Your task to perform on an android device: toggle wifi Image 0: 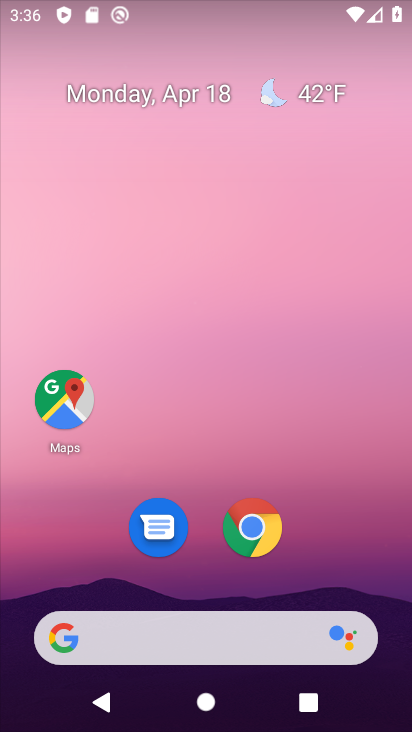
Step 0: drag from (364, 488) to (353, 138)
Your task to perform on an android device: toggle wifi Image 1: 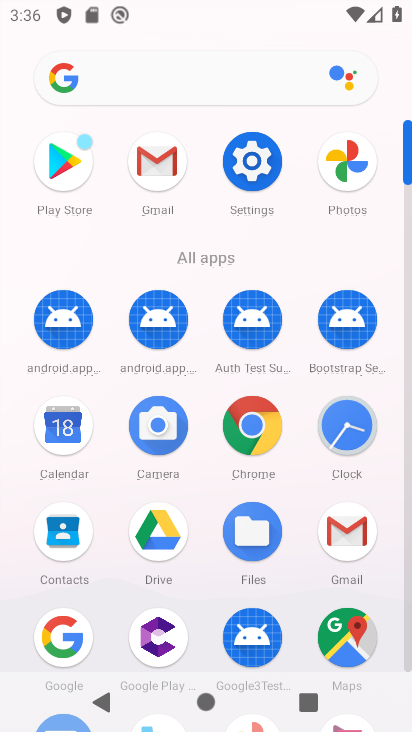
Step 1: click (406, 660)
Your task to perform on an android device: toggle wifi Image 2: 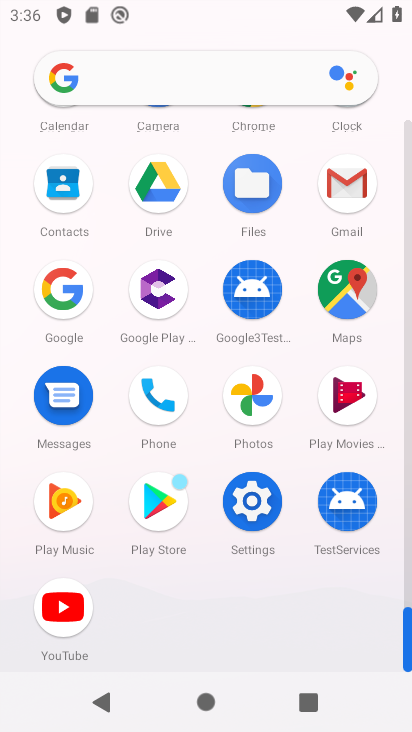
Step 2: click (249, 499)
Your task to perform on an android device: toggle wifi Image 3: 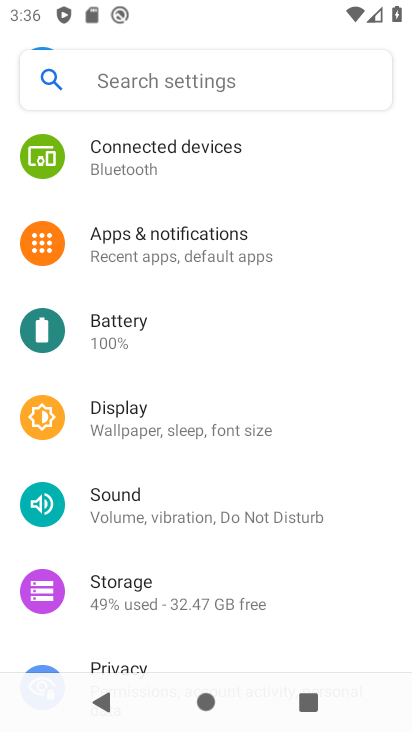
Step 3: drag from (334, 229) to (305, 507)
Your task to perform on an android device: toggle wifi Image 4: 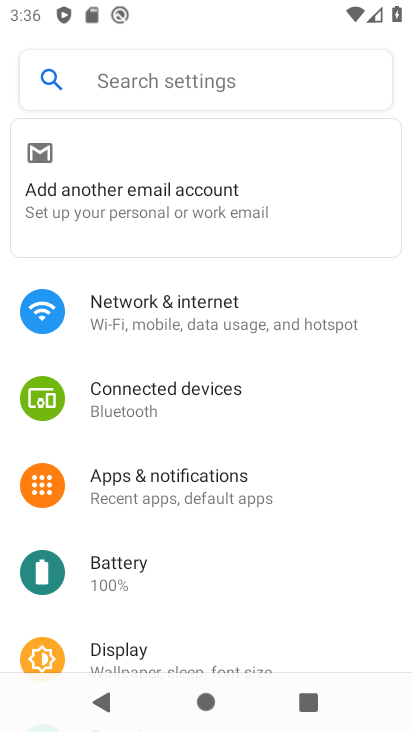
Step 4: click (146, 307)
Your task to perform on an android device: toggle wifi Image 5: 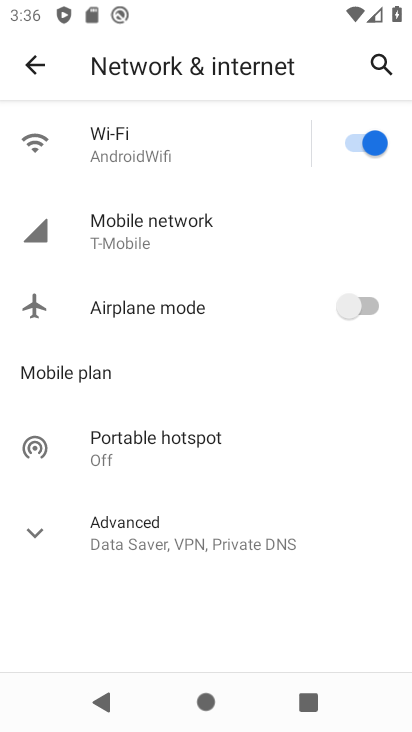
Step 5: click (348, 140)
Your task to perform on an android device: toggle wifi Image 6: 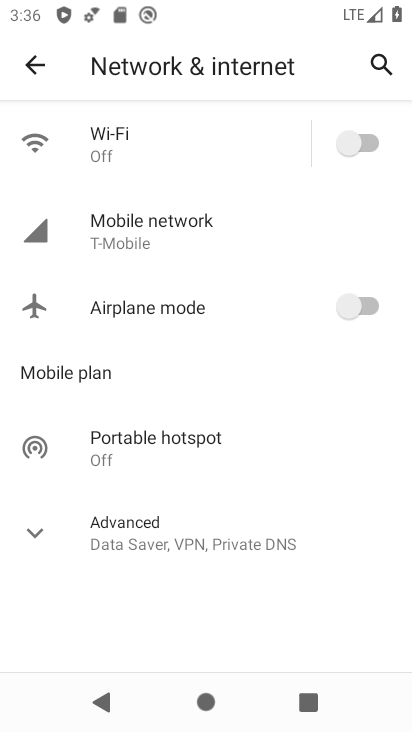
Step 6: task complete